Your task to perform on an android device: Turn on the flashlight Image 0: 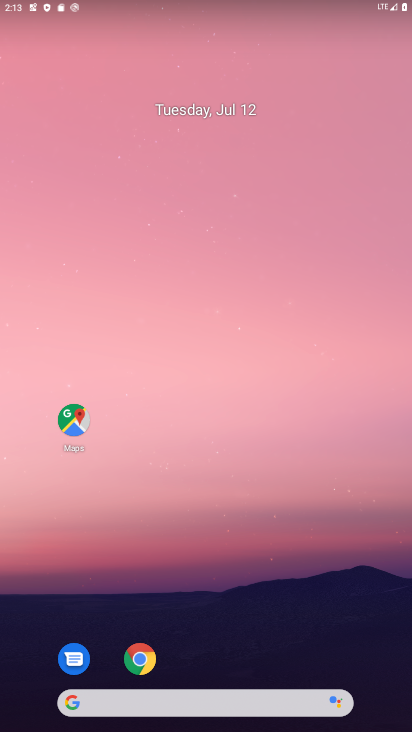
Step 0: drag from (197, 692) to (195, 220)
Your task to perform on an android device: Turn on the flashlight Image 1: 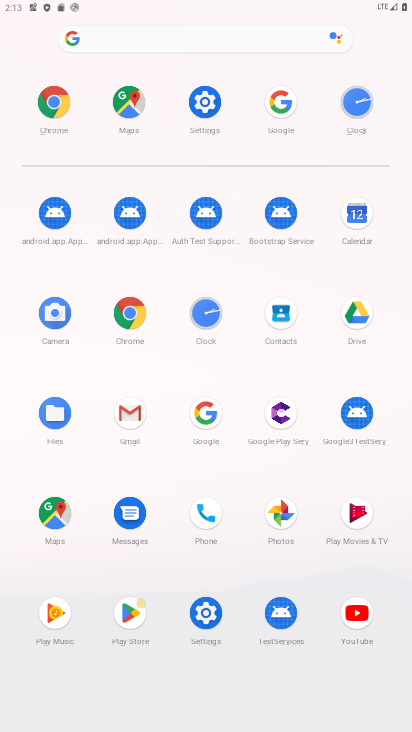
Step 1: click (209, 98)
Your task to perform on an android device: Turn on the flashlight Image 2: 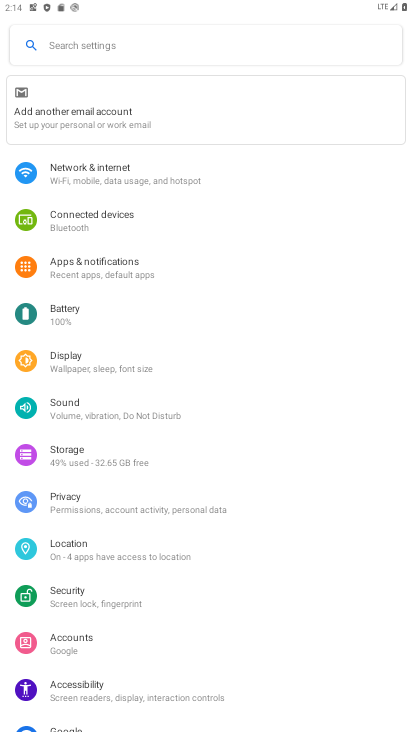
Step 2: task complete